Your task to perform on an android device: turn off airplane mode Image 0: 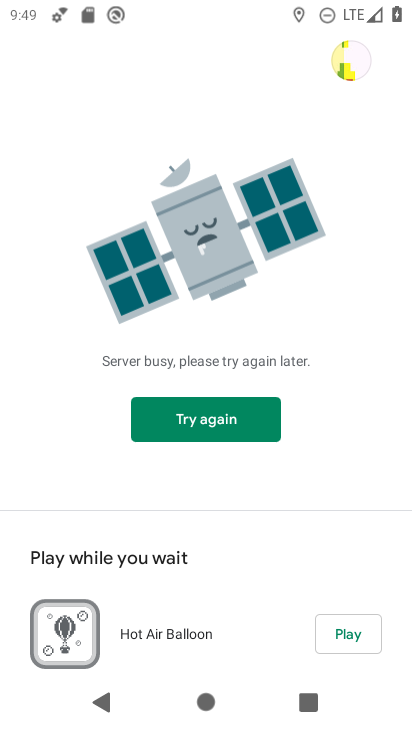
Step 0: press home button
Your task to perform on an android device: turn off airplane mode Image 1: 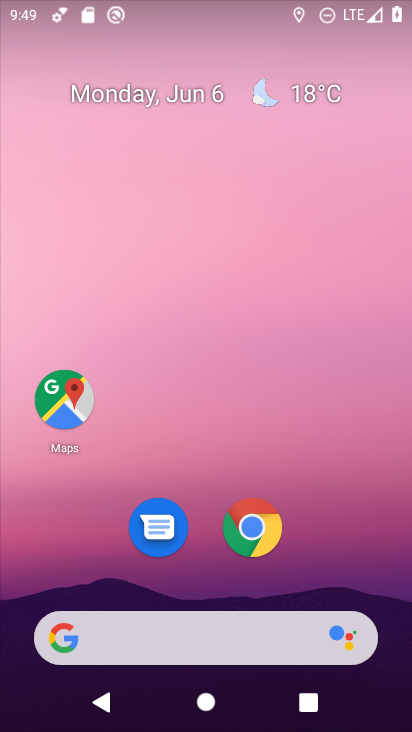
Step 1: drag from (373, 563) to (376, 130)
Your task to perform on an android device: turn off airplane mode Image 2: 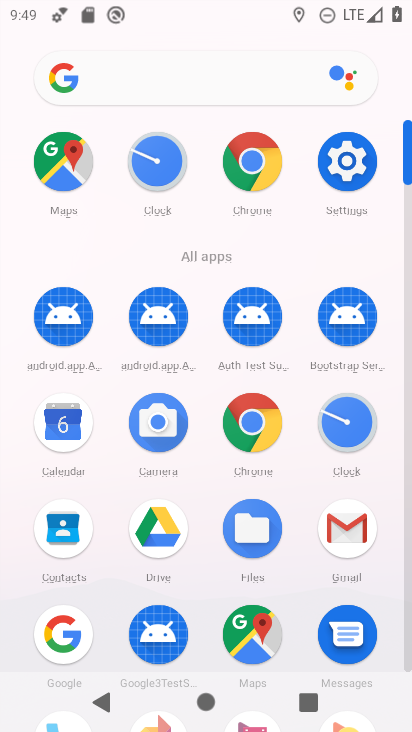
Step 2: click (350, 163)
Your task to perform on an android device: turn off airplane mode Image 3: 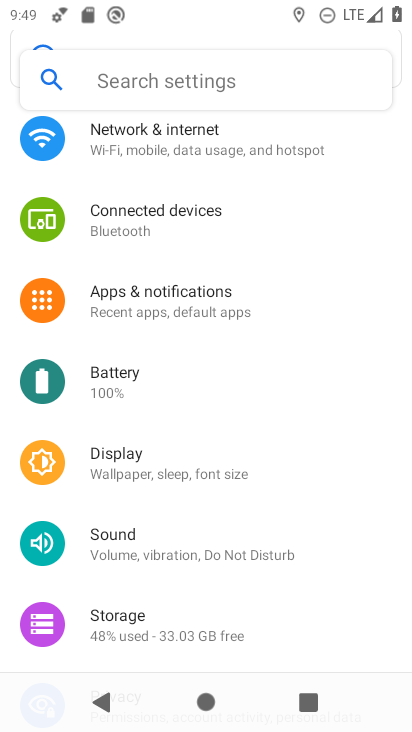
Step 3: drag from (351, 294) to (309, 395)
Your task to perform on an android device: turn off airplane mode Image 4: 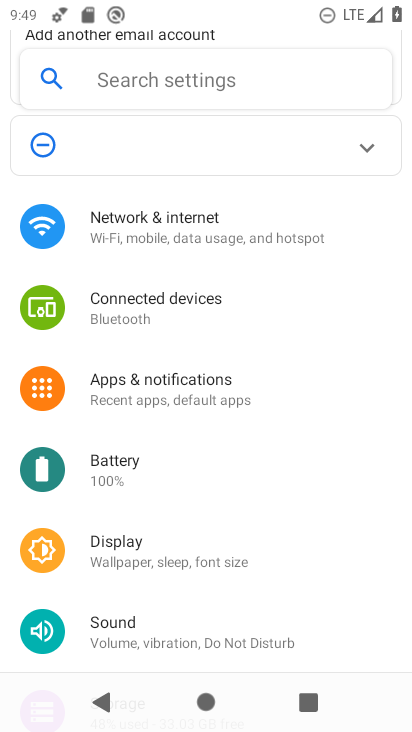
Step 4: click (265, 243)
Your task to perform on an android device: turn off airplane mode Image 5: 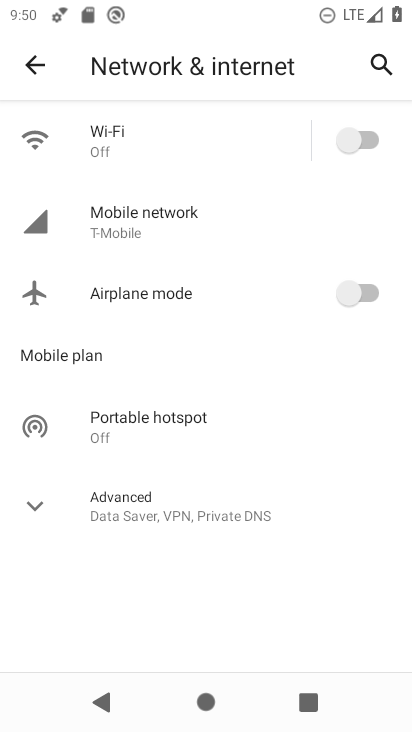
Step 5: task complete